Your task to perform on an android device: open a bookmark in the chrome app Image 0: 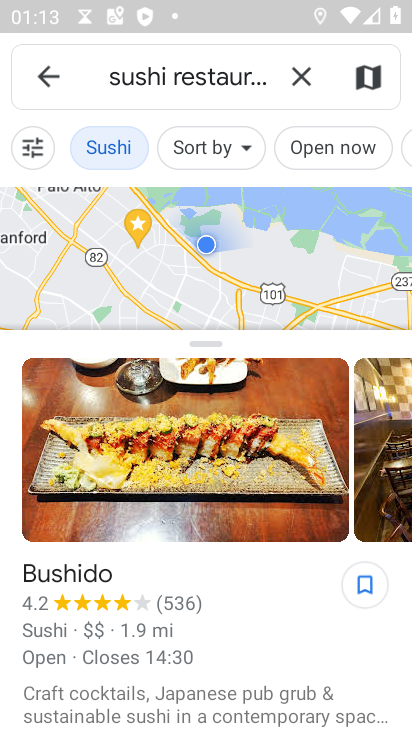
Step 0: press home button
Your task to perform on an android device: open a bookmark in the chrome app Image 1: 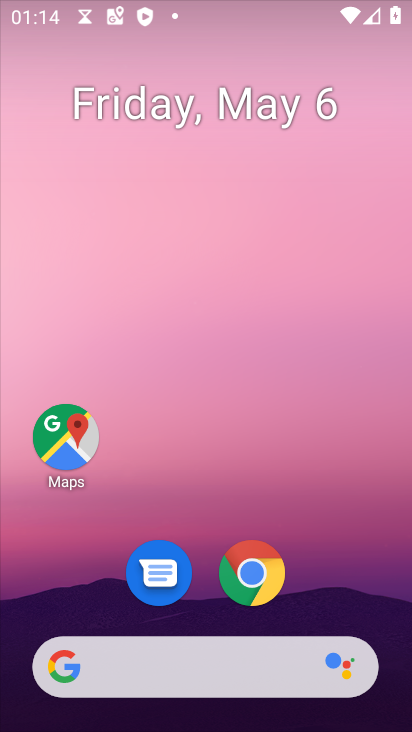
Step 1: drag from (240, 578) to (270, 227)
Your task to perform on an android device: open a bookmark in the chrome app Image 2: 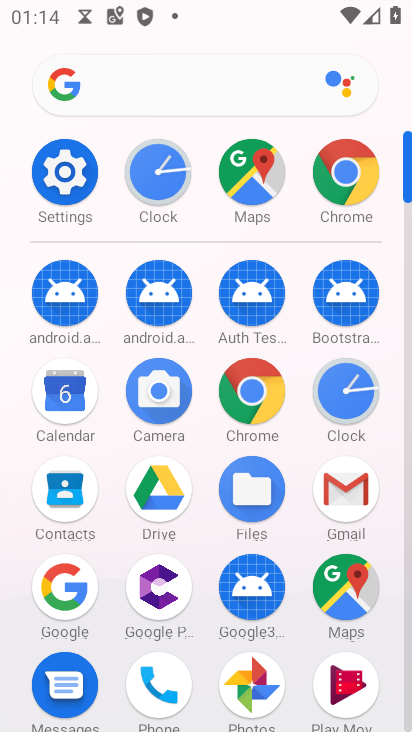
Step 2: click (251, 391)
Your task to perform on an android device: open a bookmark in the chrome app Image 3: 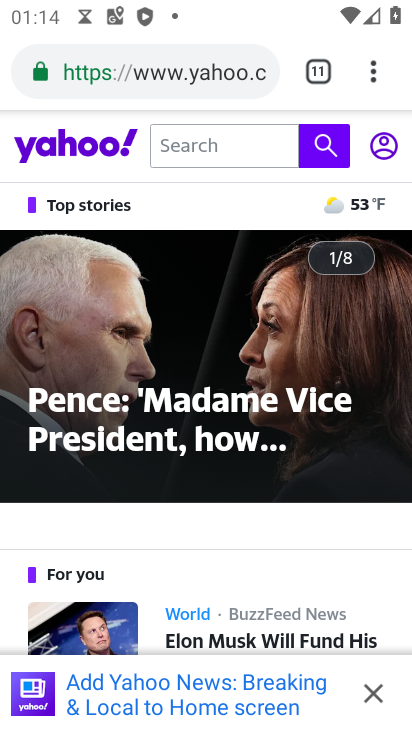
Step 3: click (360, 64)
Your task to perform on an android device: open a bookmark in the chrome app Image 4: 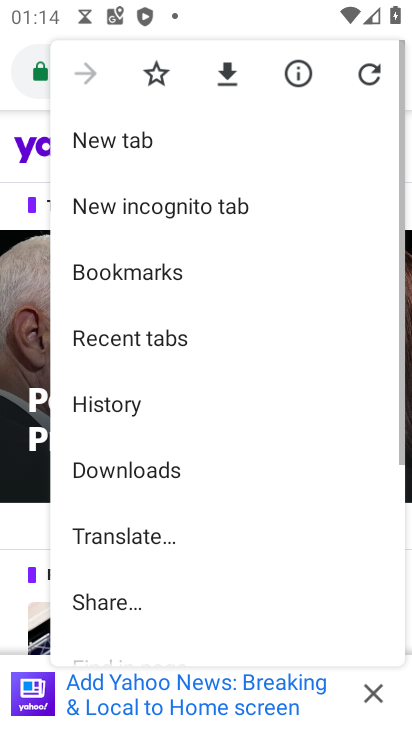
Step 4: click (139, 273)
Your task to perform on an android device: open a bookmark in the chrome app Image 5: 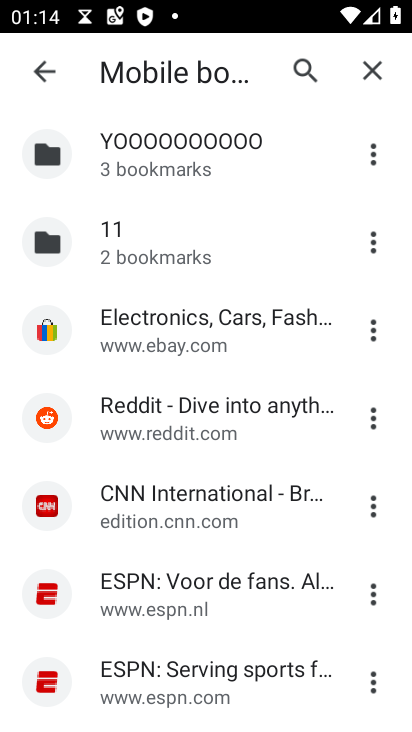
Step 5: task complete